Your task to perform on an android device: Go to Yahoo.com Image 0: 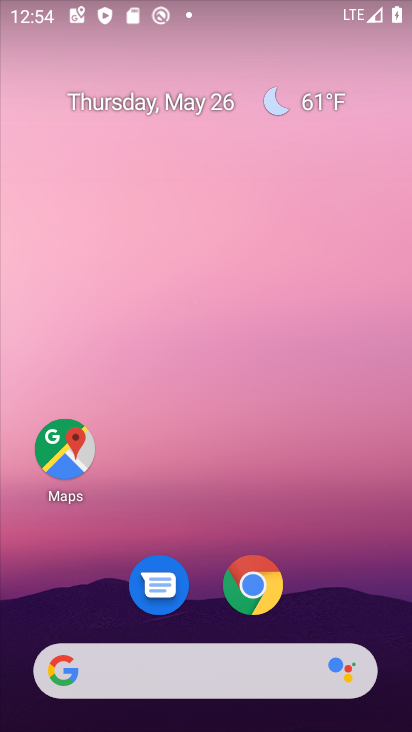
Step 0: click (241, 672)
Your task to perform on an android device: Go to Yahoo.com Image 1: 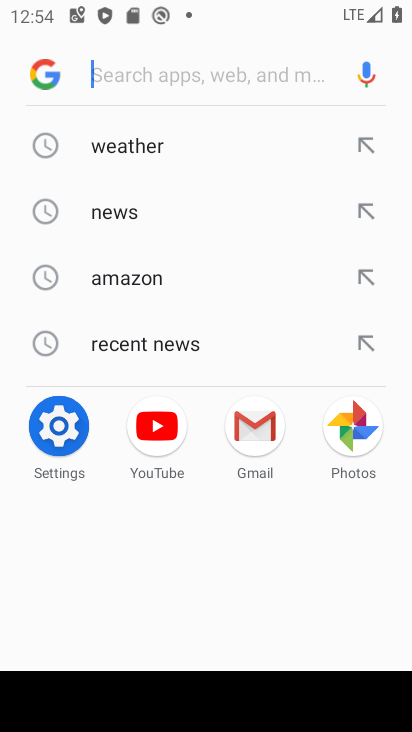
Step 1: type "yahoo.com"
Your task to perform on an android device: Go to Yahoo.com Image 2: 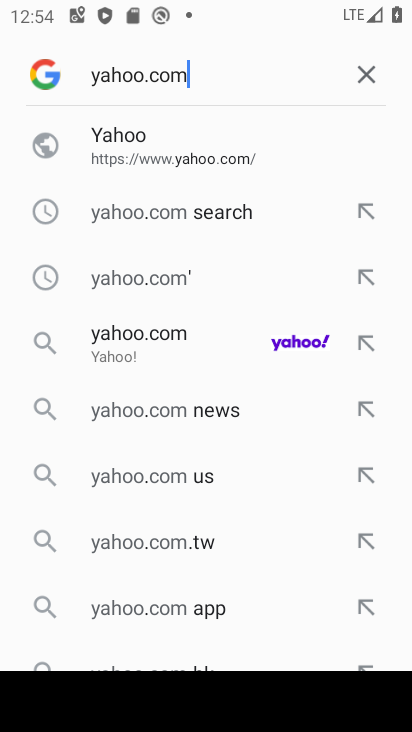
Step 2: click (170, 333)
Your task to perform on an android device: Go to Yahoo.com Image 3: 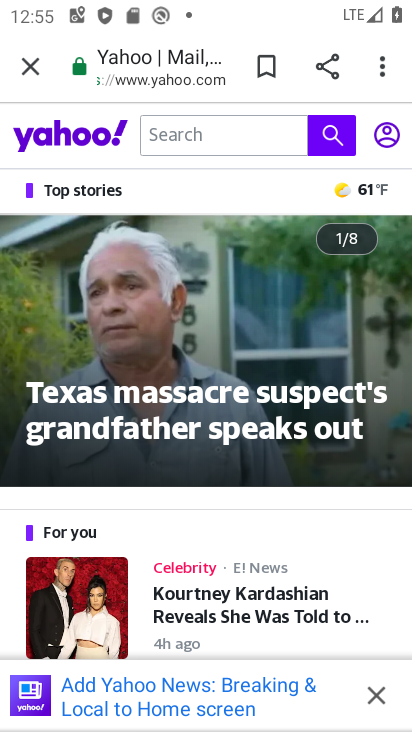
Step 3: task complete